Your task to perform on an android device: find which apps use the phone's location Image 0: 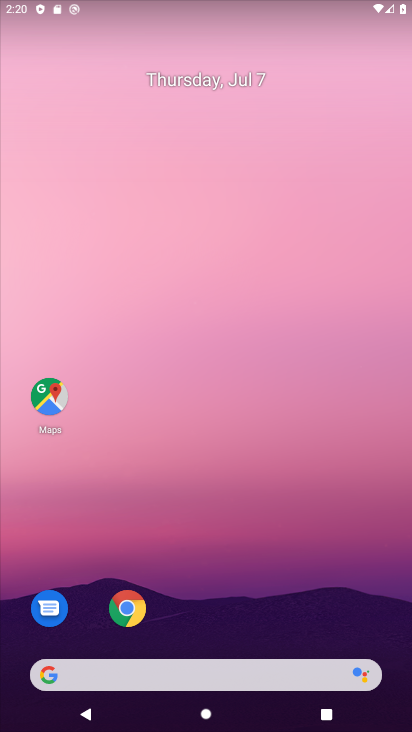
Step 0: drag from (223, 604) to (273, 69)
Your task to perform on an android device: find which apps use the phone's location Image 1: 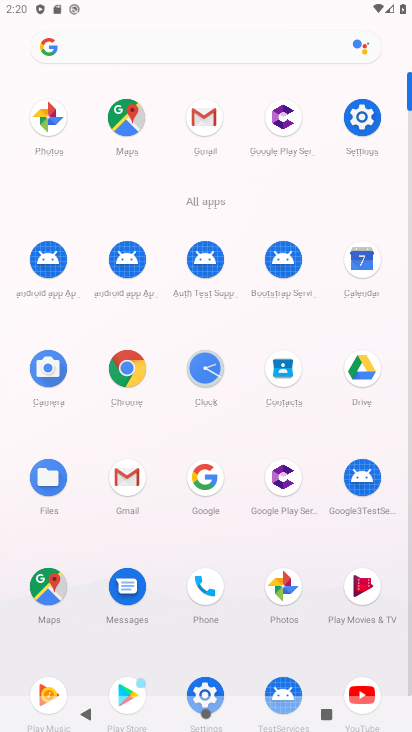
Step 1: click (362, 107)
Your task to perform on an android device: find which apps use the phone's location Image 2: 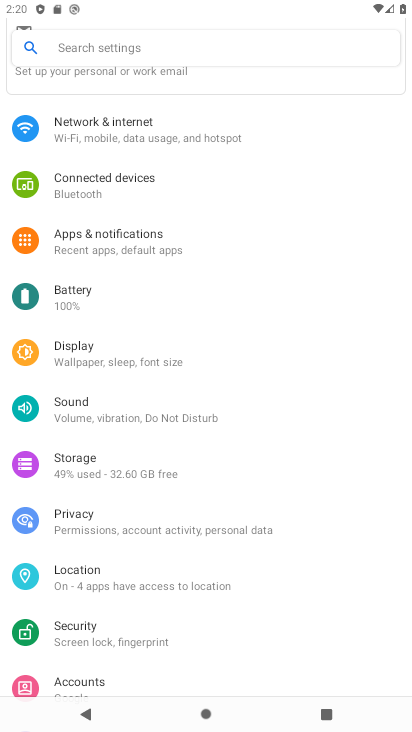
Step 2: click (93, 566)
Your task to perform on an android device: find which apps use the phone's location Image 3: 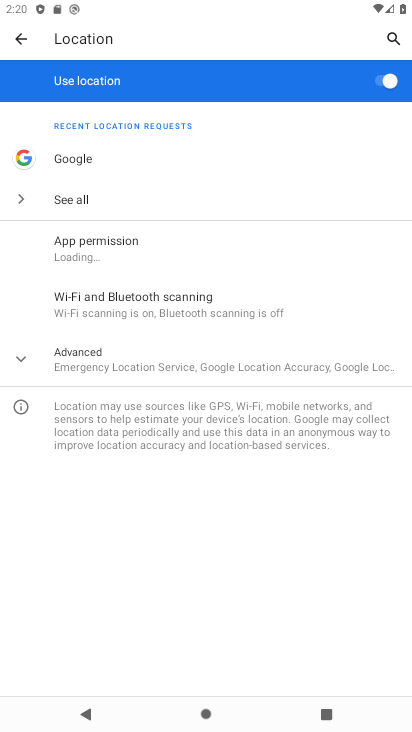
Step 3: click (97, 247)
Your task to perform on an android device: find which apps use the phone's location Image 4: 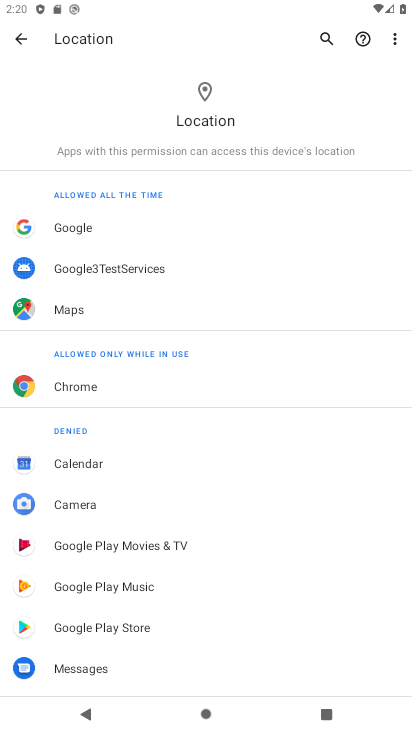
Step 4: task complete